Your task to perform on an android device: choose inbox layout in the gmail app Image 0: 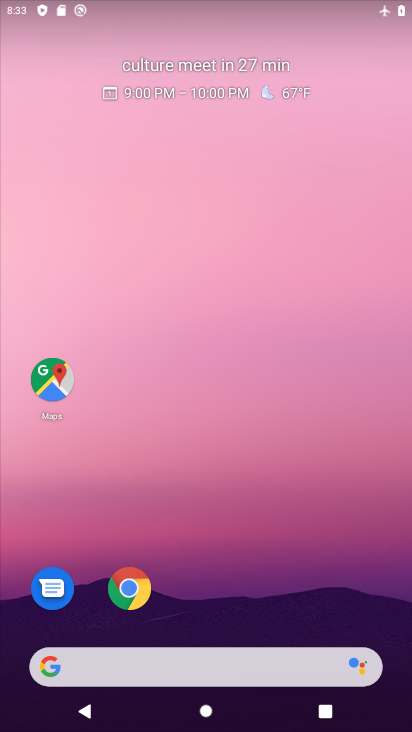
Step 0: drag from (276, 628) to (239, 8)
Your task to perform on an android device: choose inbox layout in the gmail app Image 1: 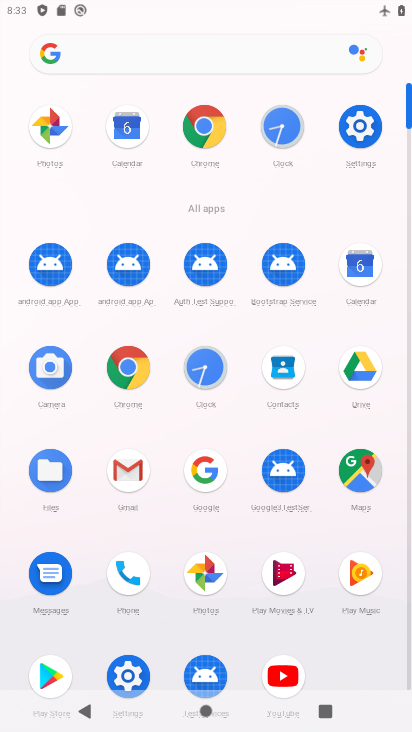
Step 1: click (137, 472)
Your task to perform on an android device: choose inbox layout in the gmail app Image 2: 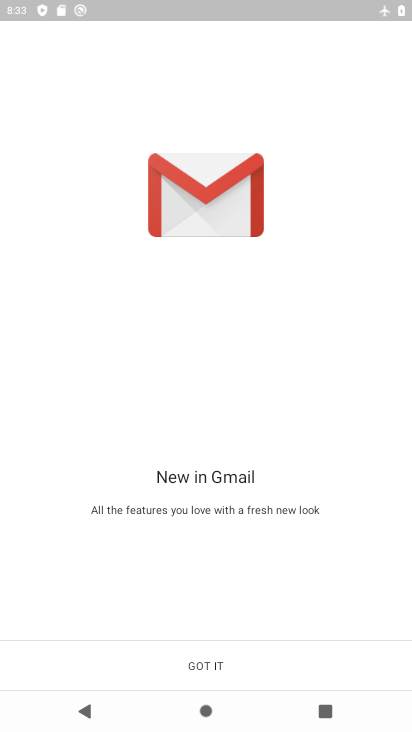
Step 2: click (206, 678)
Your task to perform on an android device: choose inbox layout in the gmail app Image 3: 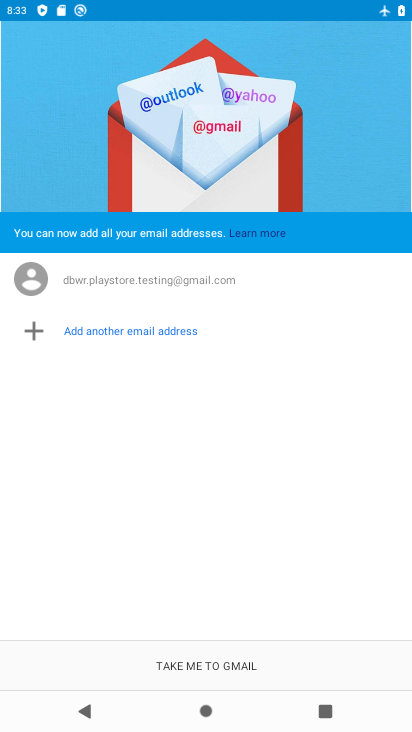
Step 3: click (243, 660)
Your task to perform on an android device: choose inbox layout in the gmail app Image 4: 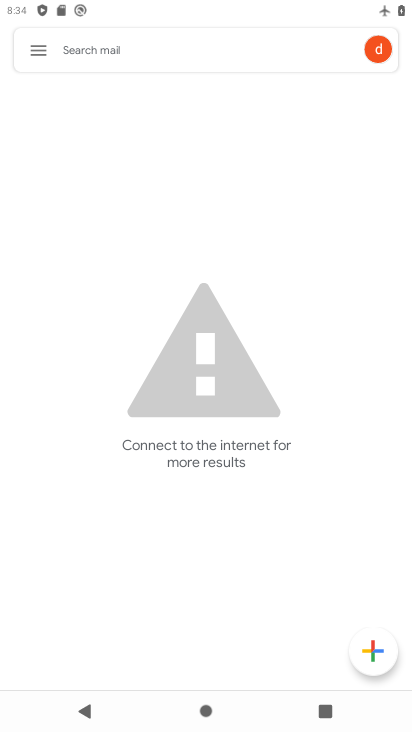
Step 4: click (39, 50)
Your task to perform on an android device: choose inbox layout in the gmail app Image 5: 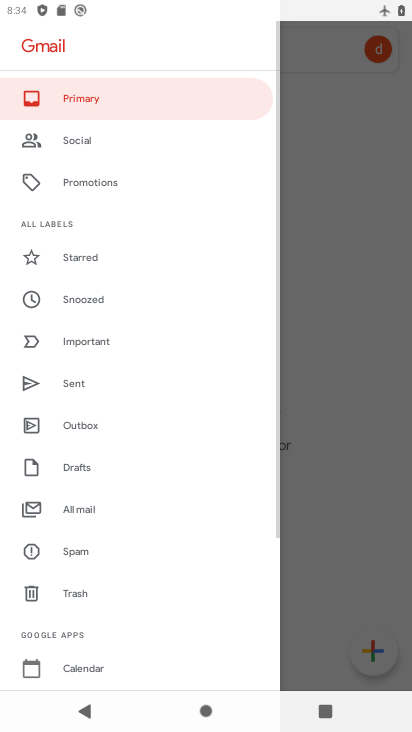
Step 5: drag from (150, 605) to (228, 98)
Your task to perform on an android device: choose inbox layout in the gmail app Image 6: 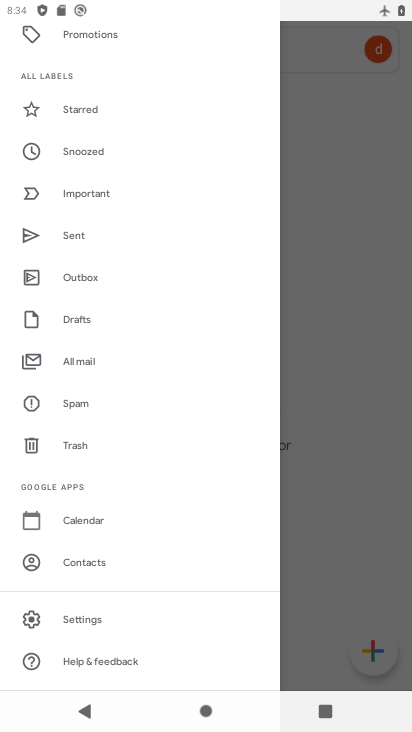
Step 6: click (69, 641)
Your task to perform on an android device: choose inbox layout in the gmail app Image 7: 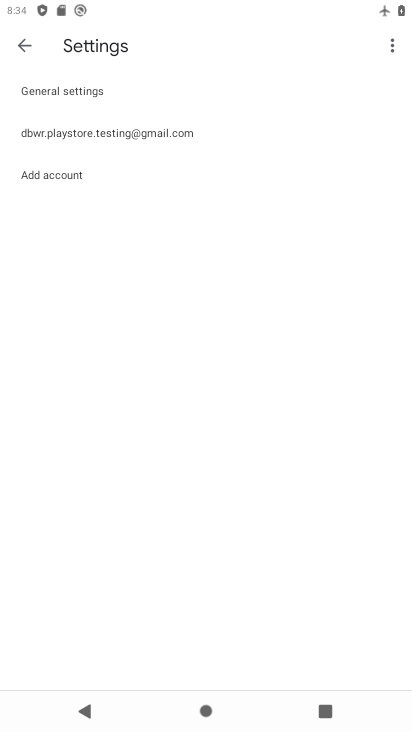
Step 7: click (70, 132)
Your task to perform on an android device: choose inbox layout in the gmail app Image 8: 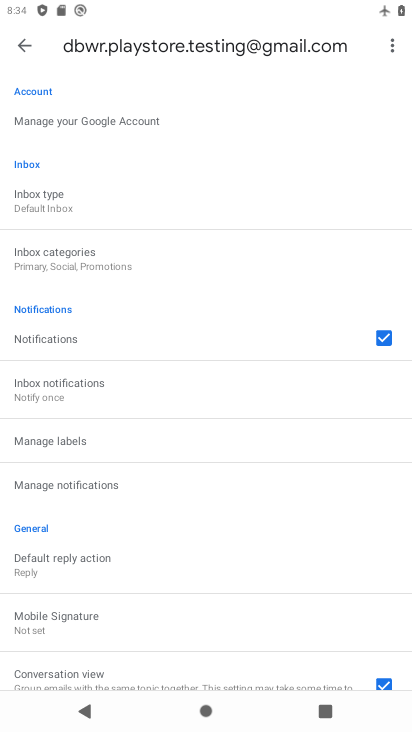
Step 8: click (57, 204)
Your task to perform on an android device: choose inbox layout in the gmail app Image 9: 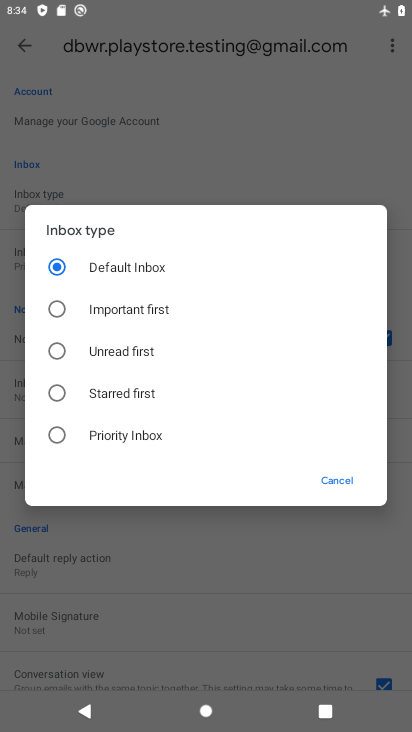
Step 9: click (62, 355)
Your task to perform on an android device: choose inbox layout in the gmail app Image 10: 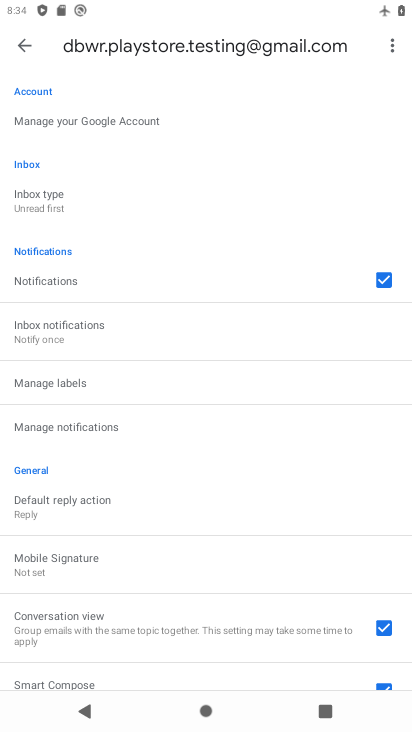
Step 10: task complete